Your task to perform on an android device: turn off airplane mode Image 0: 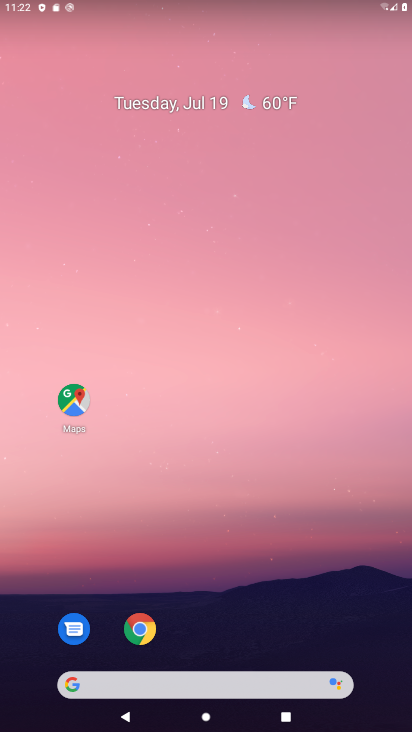
Step 0: drag from (316, 606) to (299, 8)
Your task to perform on an android device: turn off airplane mode Image 1: 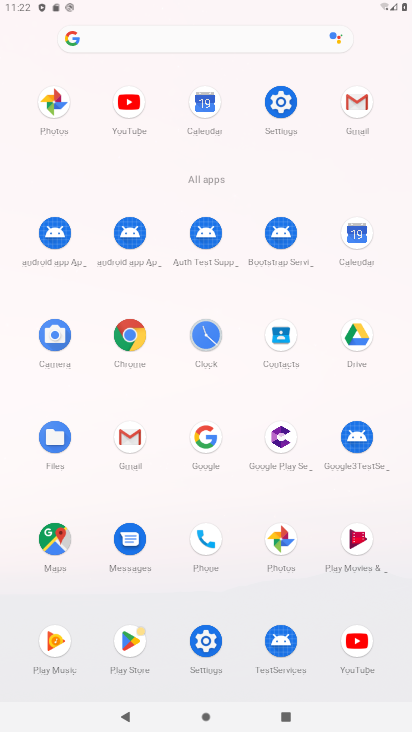
Step 1: click (270, 108)
Your task to perform on an android device: turn off airplane mode Image 2: 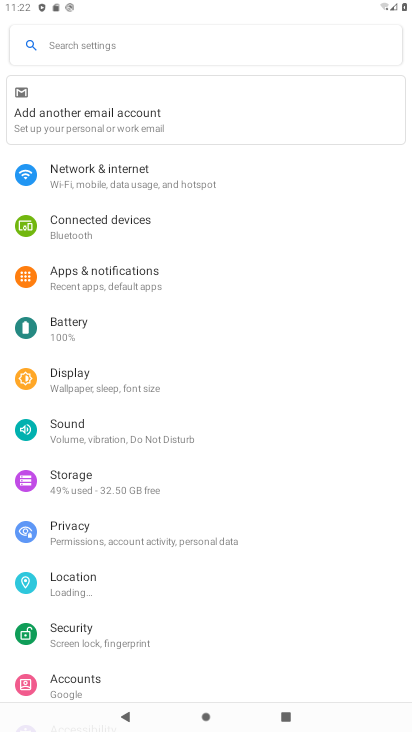
Step 2: click (162, 165)
Your task to perform on an android device: turn off airplane mode Image 3: 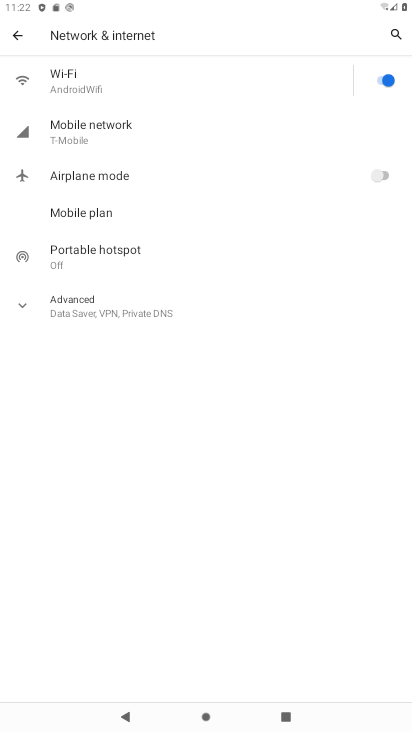
Step 3: task complete